Your task to perform on an android device: Go to wifi settings Image 0: 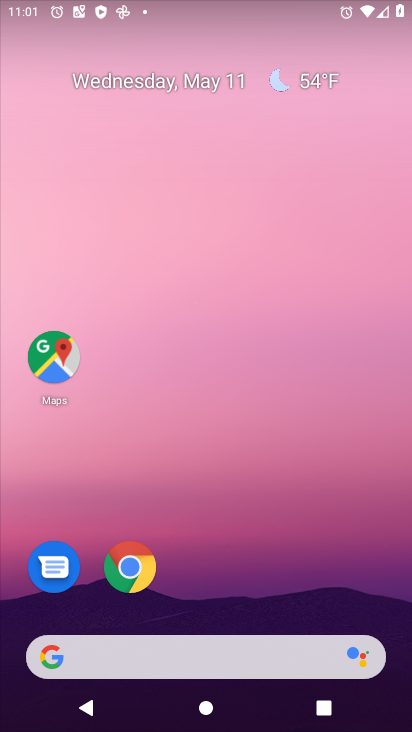
Step 0: drag from (214, 581) to (286, 12)
Your task to perform on an android device: Go to wifi settings Image 1: 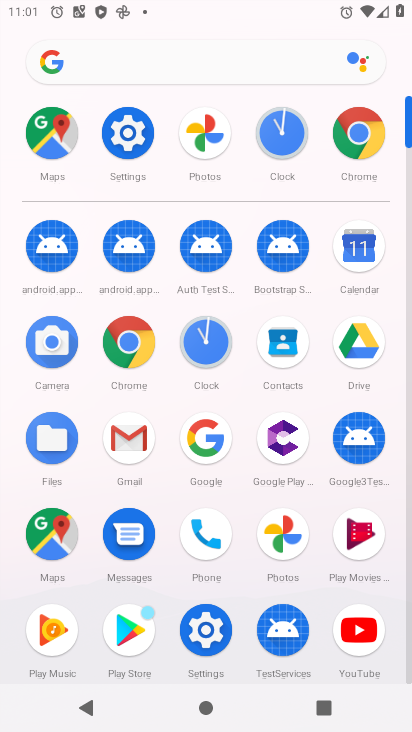
Step 1: click (128, 157)
Your task to perform on an android device: Go to wifi settings Image 2: 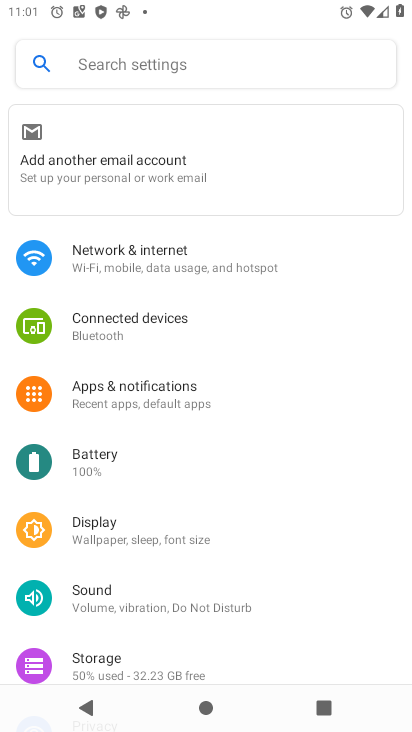
Step 2: click (144, 268)
Your task to perform on an android device: Go to wifi settings Image 3: 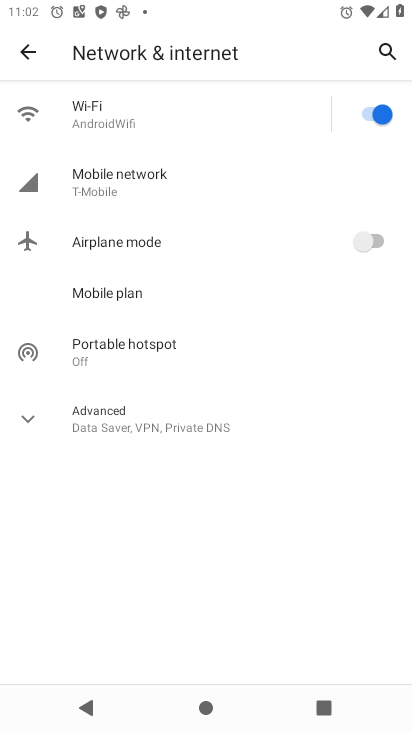
Step 3: click (147, 118)
Your task to perform on an android device: Go to wifi settings Image 4: 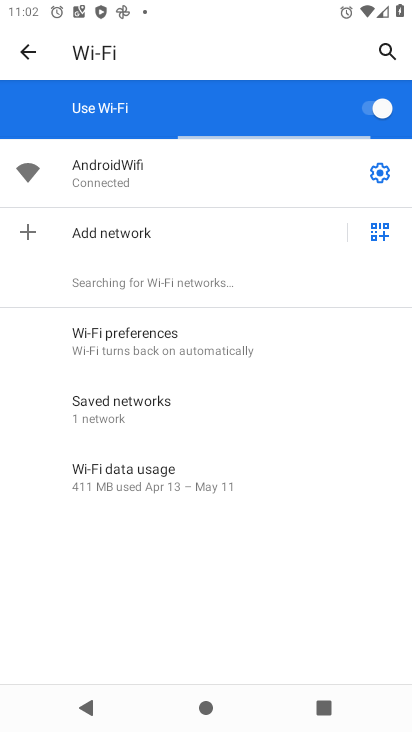
Step 4: task complete